Your task to perform on an android device: change alarm snooze length Image 0: 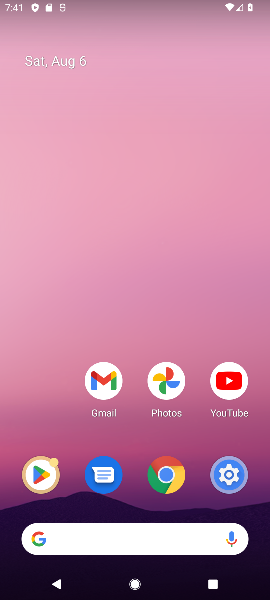
Step 0: drag from (154, 442) to (187, 7)
Your task to perform on an android device: change alarm snooze length Image 1: 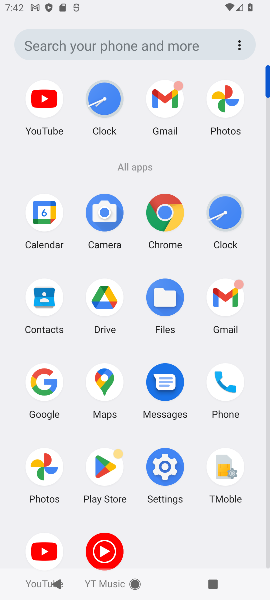
Step 1: click (222, 222)
Your task to perform on an android device: change alarm snooze length Image 2: 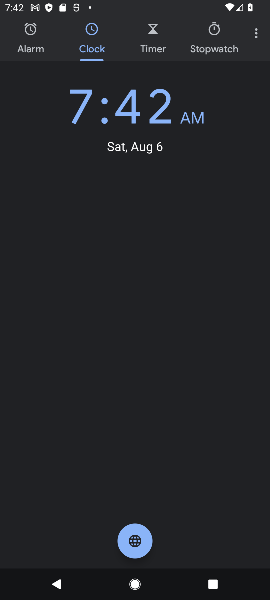
Step 2: click (253, 33)
Your task to perform on an android device: change alarm snooze length Image 3: 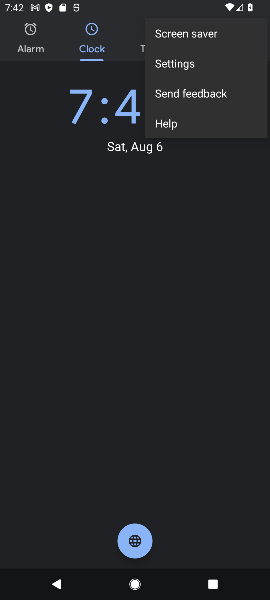
Step 3: click (192, 71)
Your task to perform on an android device: change alarm snooze length Image 4: 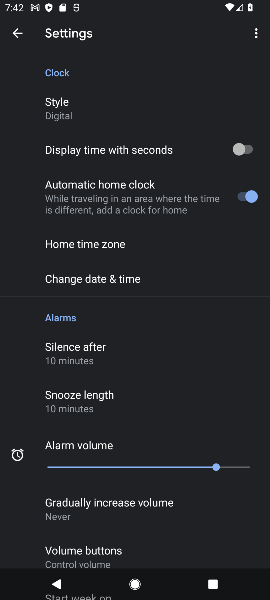
Step 4: click (93, 396)
Your task to perform on an android device: change alarm snooze length Image 5: 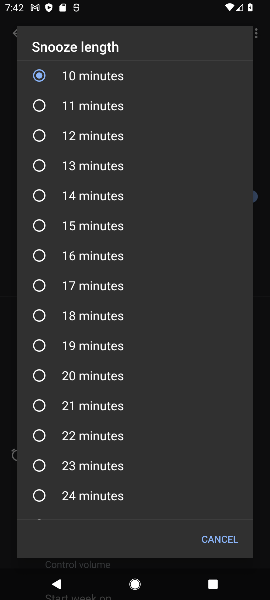
Step 5: click (87, 228)
Your task to perform on an android device: change alarm snooze length Image 6: 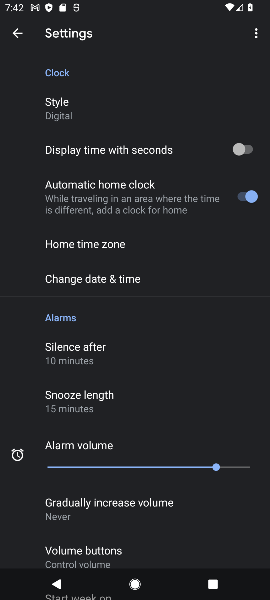
Step 6: task complete